Your task to perform on an android device: turn pop-ups on in chrome Image 0: 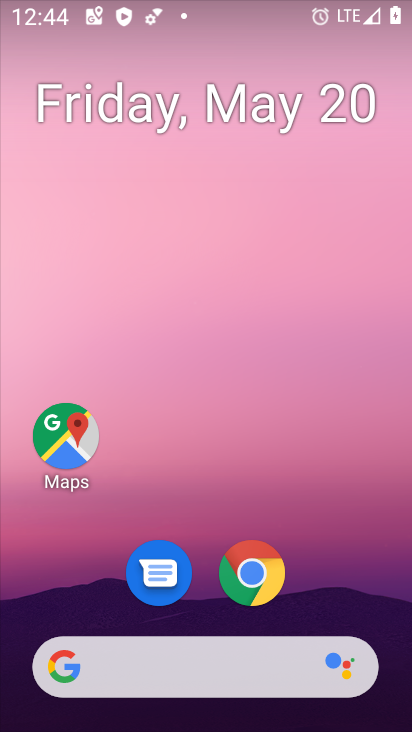
Step 0: click (248, 571)
Your task to perform on an android device: turn pop-ups on in chrome Image 1: 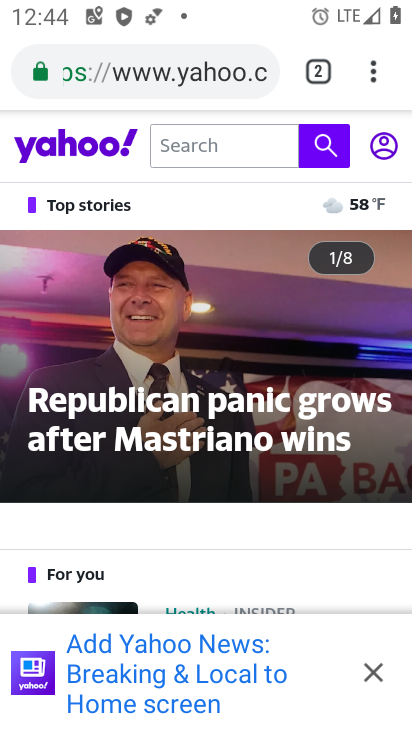
Step 1: click (371, 71)
Your task to perform on an android device: turn pop-ups on in chrome Image 2: 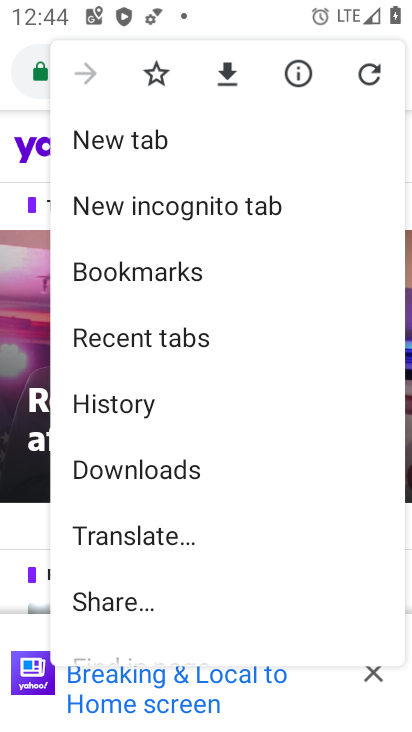
Step 2: drag from (224, 535) to (228, 116)
Your task to perform on an android device: turn pop-ups on in chrome Image 3: 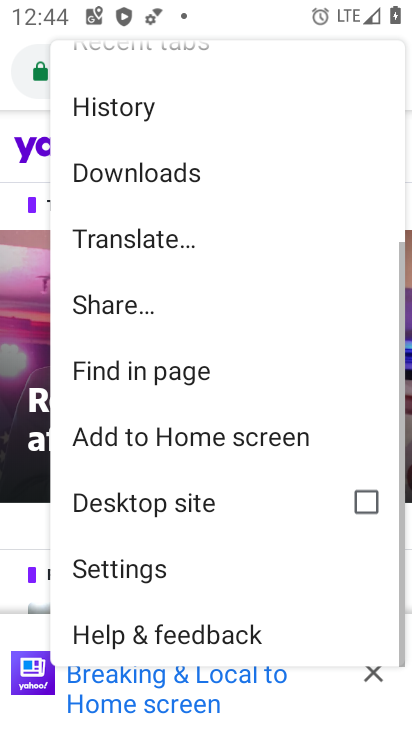
Step 3: click (152, 563)
Your task to perform on an android device: turn pop-ups on in chrome Image 4: 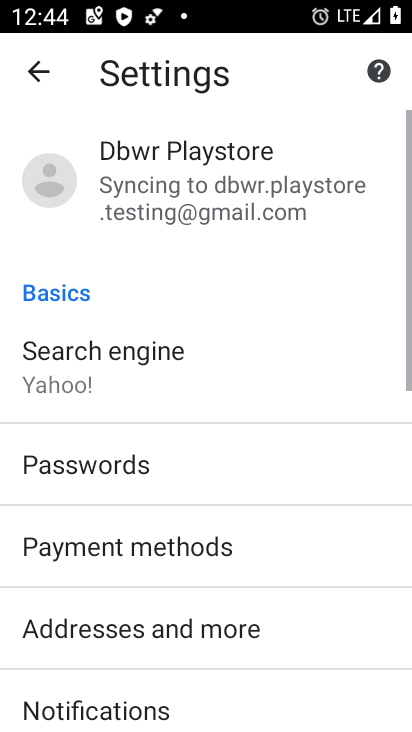
Step 4: drag from (277, 529) to (281, 87)
Your task to perform on an android device: turn pop-ups on in chrome Image 5: 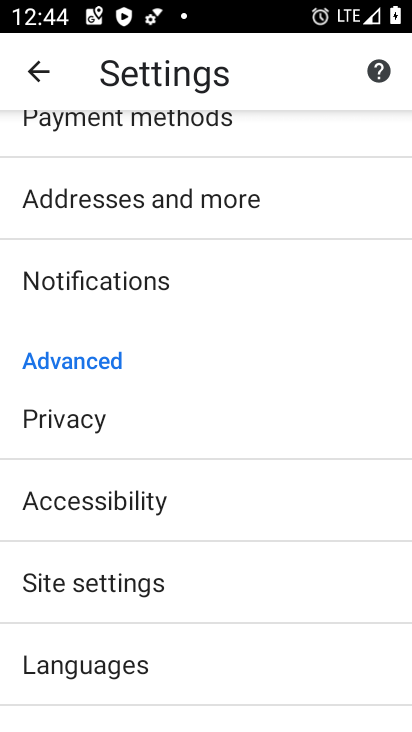
Step 5: click (123, 565)
Your task to perform on an android device: turn pop-ups on in chrome Image 6: 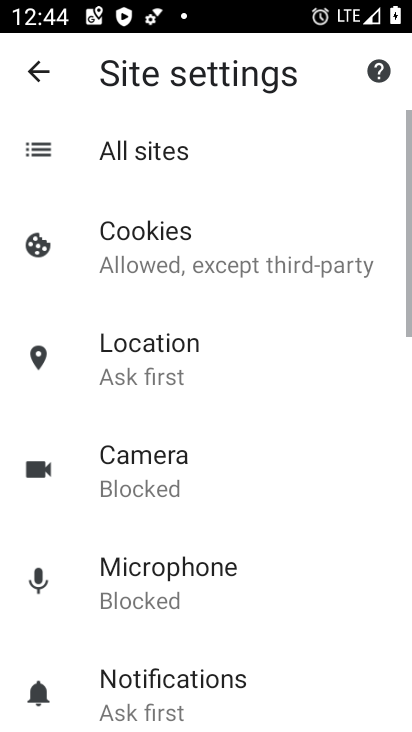
Step 6: drag from (246, 586) to (233, 218)
Your task to perform on an android device: turn pop-ups on in chrome Image 7: 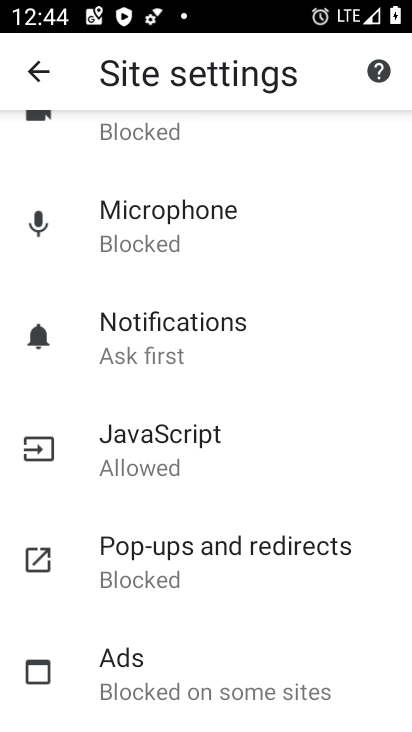
Step 7: click (143, 569)
Your task to perform on an android device: turn pop-ups on in chrome Image 8: 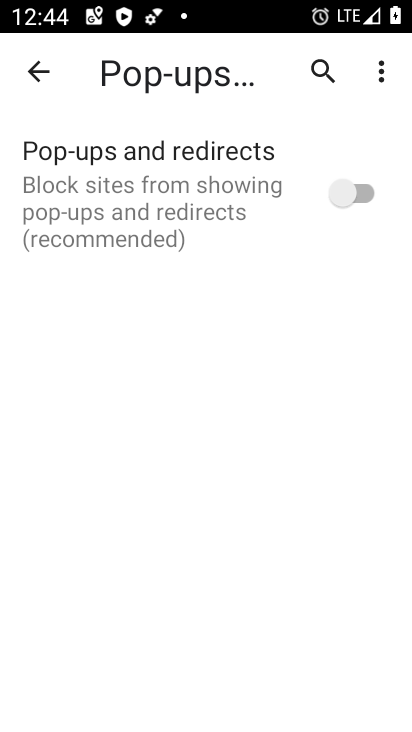
Step 8: click (352, 189)
Your task to perform on an android device: turn pop-ups on in chrome Image 9: 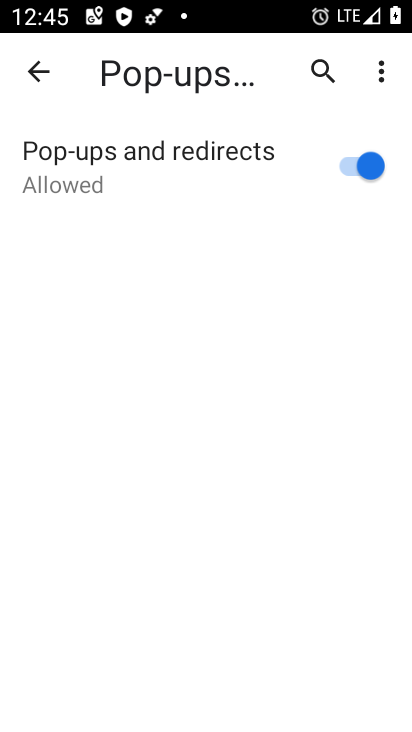
Step 9: task complete